Your task to perform on an android device: toggle priority inbox in the gmail app Image 0: 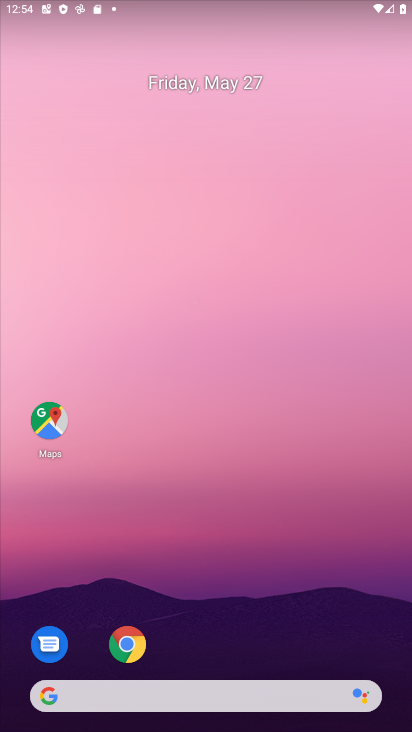
Step 0: drag from (318, 659) to (230, 40)
Your task to perform on an android device: toggle priority inbox in the gmail app Image 1: 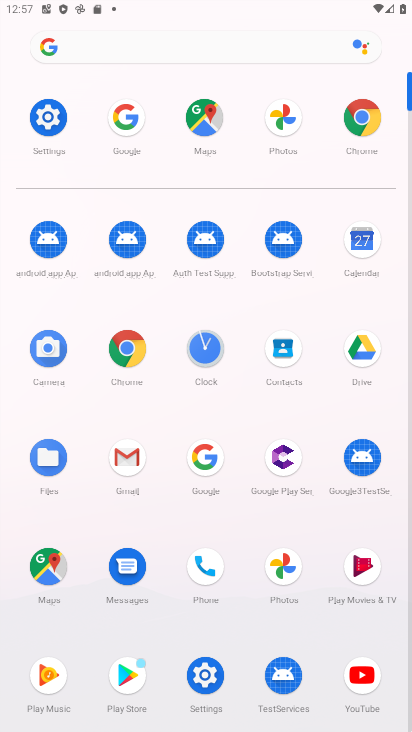
Step 1: click (121, 462)
Your task to perform on an android device: toggle priority inbox in the gmail app Image 2: 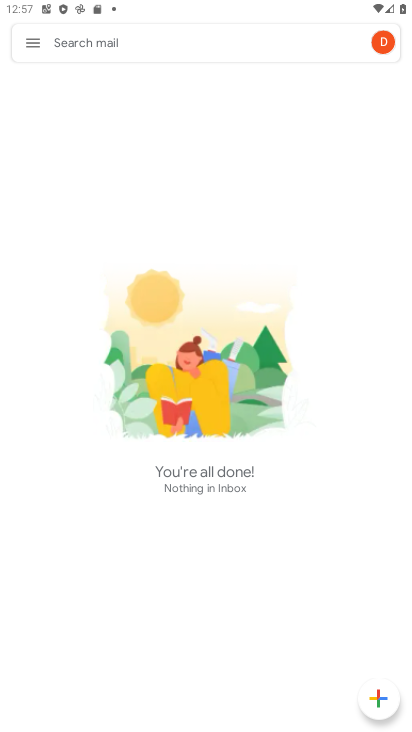
Step 2: click (25, 52)
Your task to perform on an android device: toggle priority inbox in the gmail app Image 3: 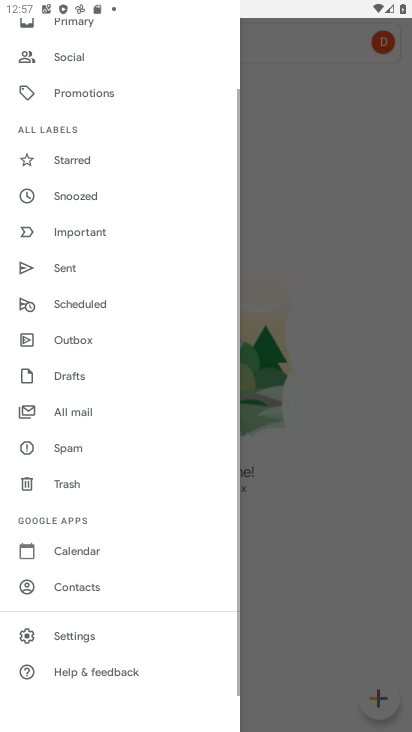
Step 3: click (94, 638)
Your task to perform on an android device: toggle priority inbox in the gmail app Image 4: 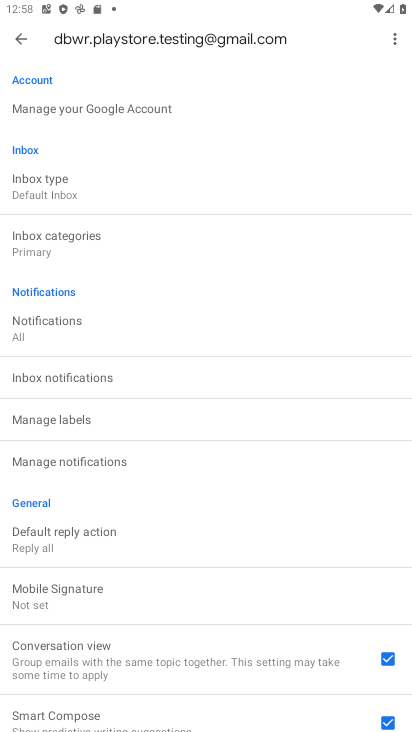
Step 4: click (86, 186)
Your task to perform on an android device: toggle priority inbox in the gmail app Image 5: 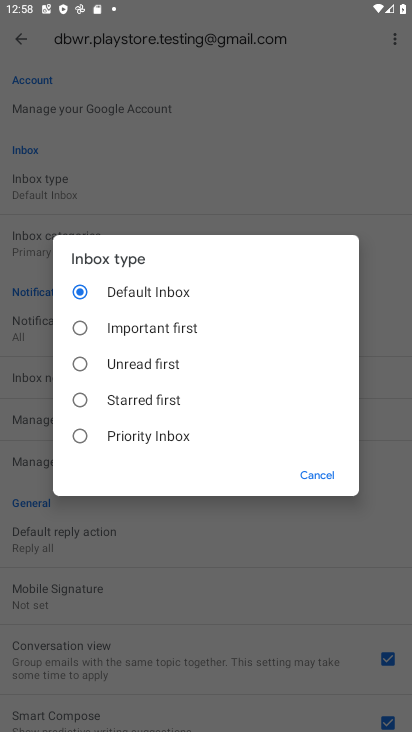
Step 5: task complete